Your task to perform on an android device: toggle translation in the chrome app Image 0: 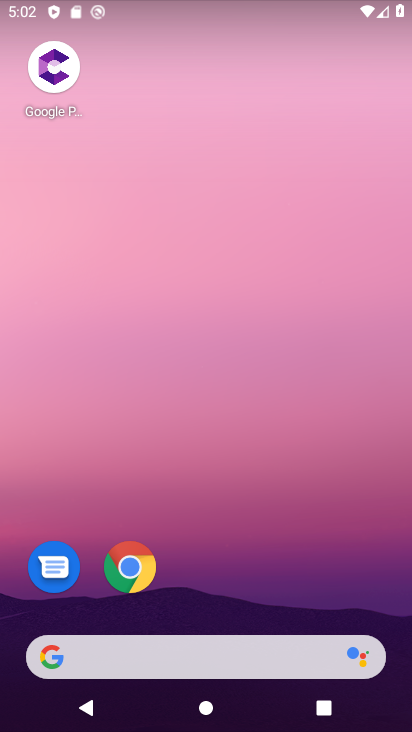
Step 0: drag from (348, 556) to (304, 63)
Your task to perform on an android device: toggle translation in the chrome app Image 1: 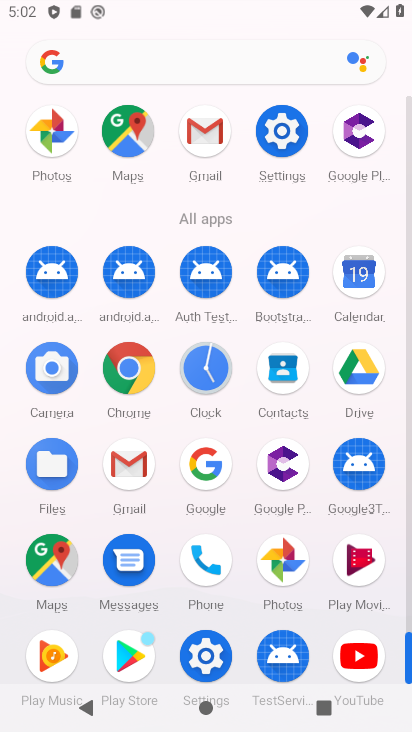
Step 1: click (128, 367)
Your task to perform on an android device: toggle translation in the chrome app Image 2: 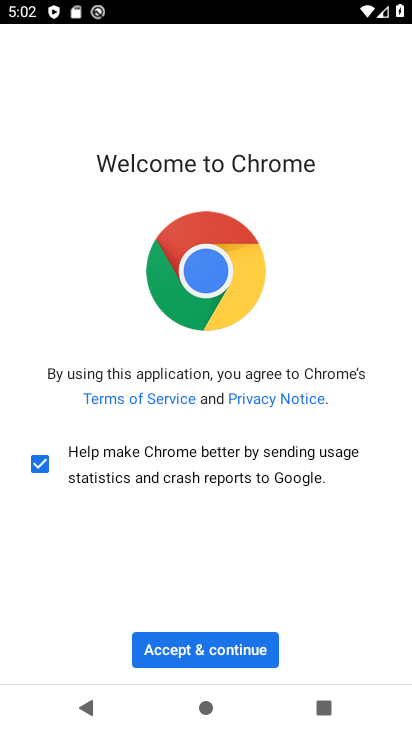
Step 2: click (236, 655)
Your task to perform on an android device: toggle translation in the chrome app Image 3: 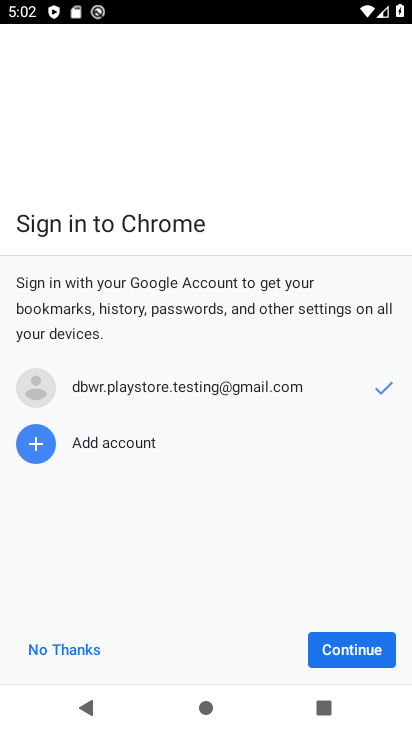
Step 3: click (354, 655)
Your task to perform on an android device: toggle translation in the chrome app Image 4: 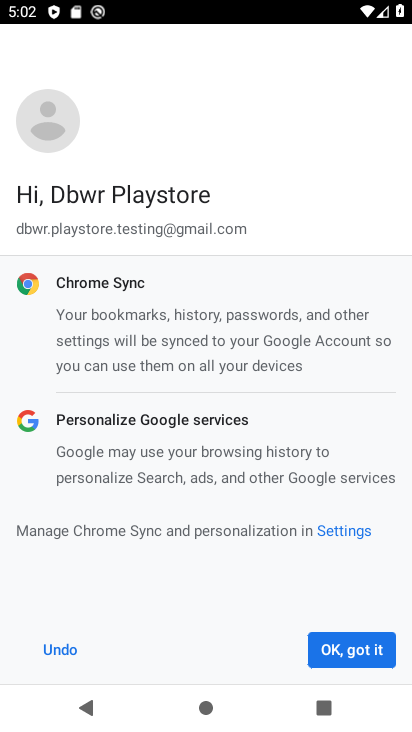
Step 4: click (354, 645)
Your task to perform on an android device: toggle translation in the chrome app Image 5: 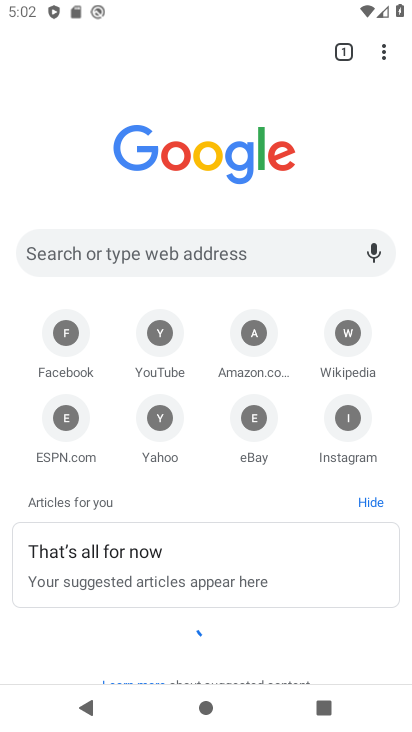
Step 5: drag from (383, 56) to (210, 439)
Your task to perform on an android device: toggle translation in the chrome app Image 6: 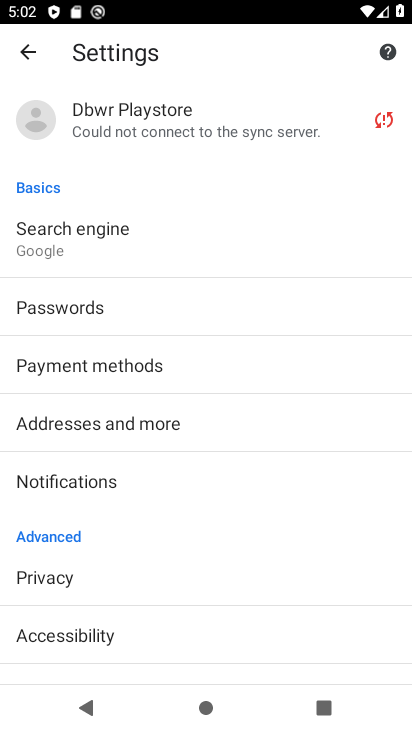
Step 6: drag from (212, 507) to (232, 178)
Your task to perform on an android device: toggle translation in the chrome app Image 7: 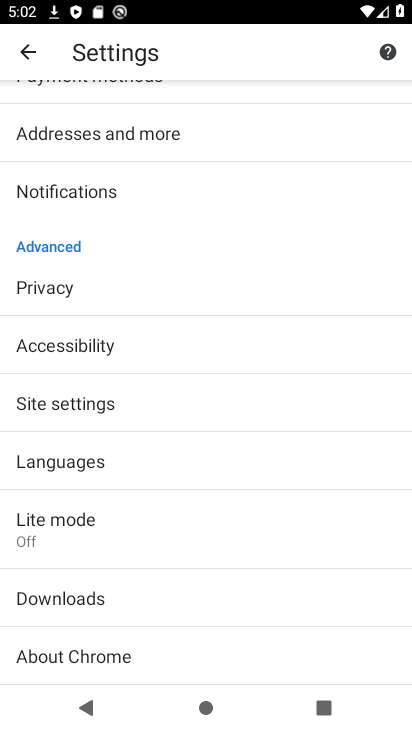
Step 7: click (110, 471)
Your task to perform on an android device: toggle translation in the chrome app Image 8: 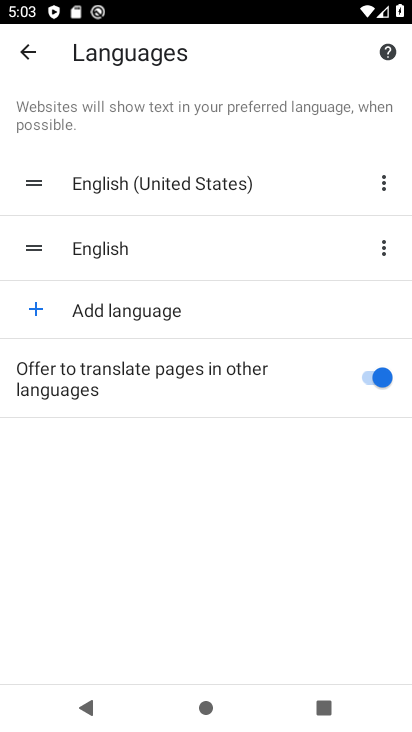
Step 8: click (227, 550)
Your task to perform on an android device: toggle translation in the chrome app Image 9: 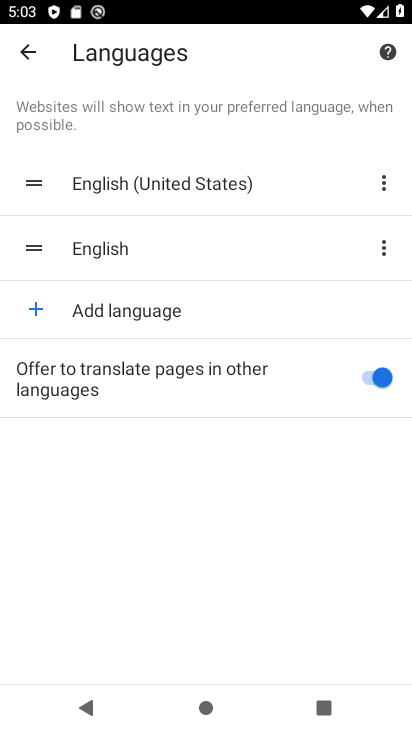
Step 9: click (367, 370)
Your task to perform on an android device: toggle translation in the chrome app Image 10: 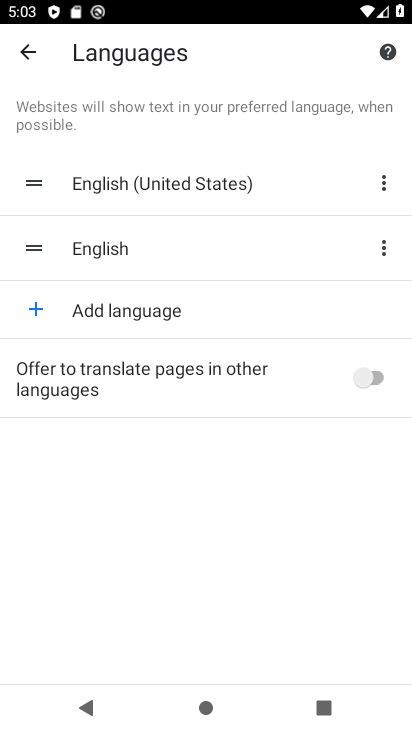
Step 10: task complete